Your task to perform on an android device: Play the last video I watched on Youtube Image 0: 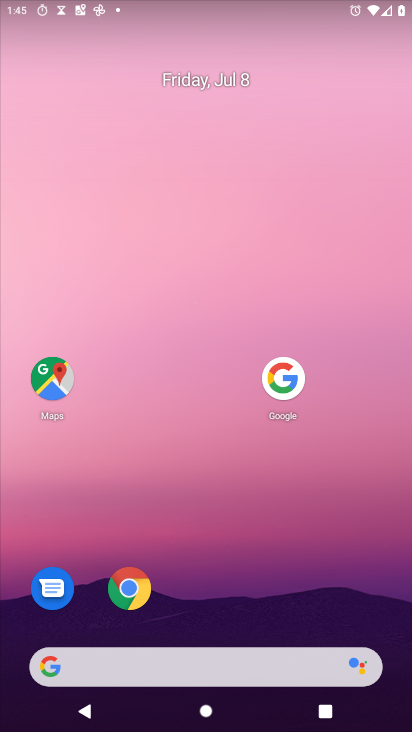
Step 0: drag from (227, 665) to (311, 69)
Your task to perform on an android device: Play the last video I watched on Youtube Image 1: 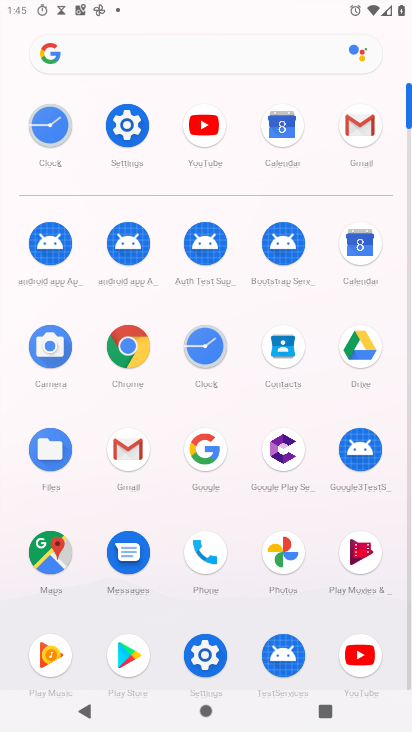
Step 1: click (351, 658)
Your task to perform on an android device: Play the last video I watched on Youtube Image 2: 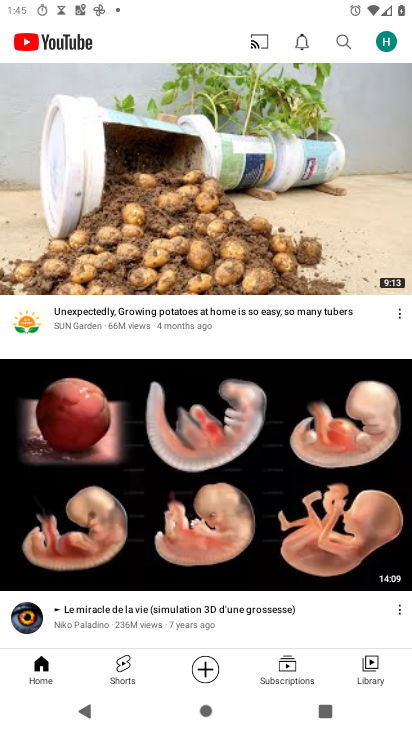
Step 2: click (367, 675)
Your task to perform on an android device: Play the last video I watched on Youtube Image 3: 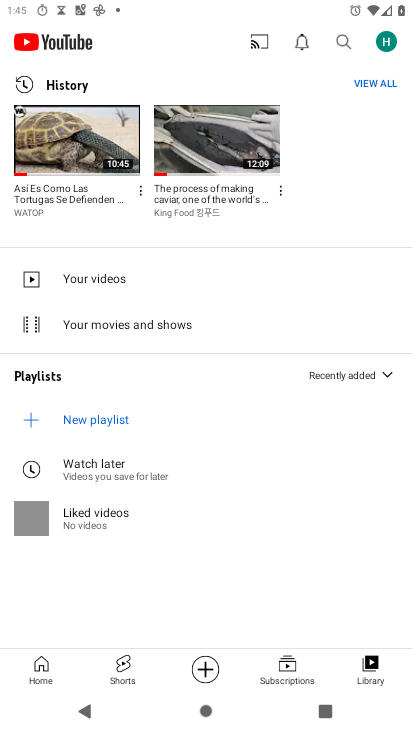
Step 3: click (77, 138)
Your task to perform on an android device: Play the last video I watched on Youtube Image 4: 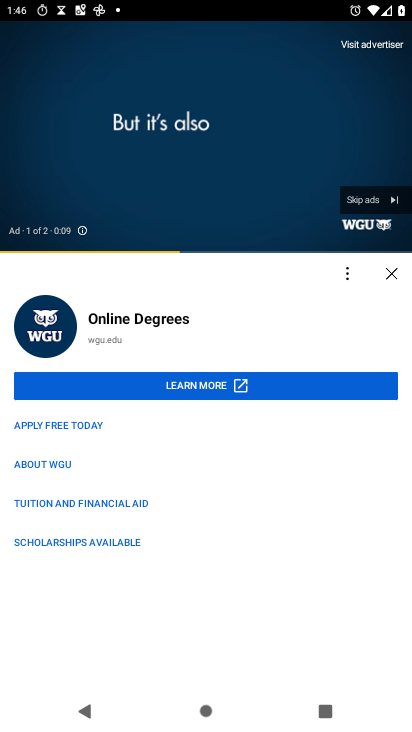
Step 4: click (369, 197)
Your task to perform on an android device: Play the last video I watched on Youtube Image 5: 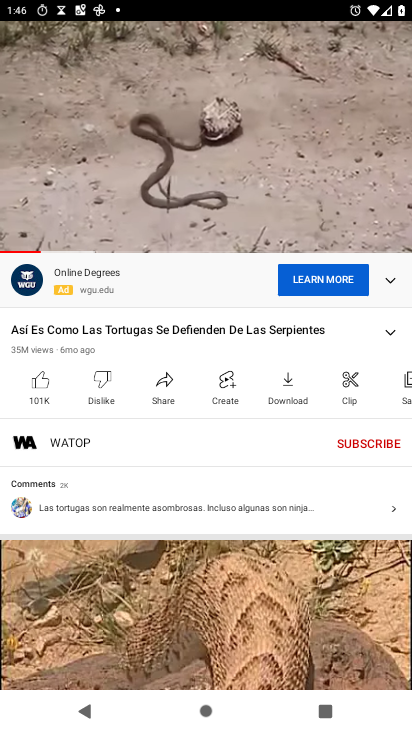
Step 5: click (202, 122)
Your task to perform on an android device: Play the last video I watched on Youtube Image 6: 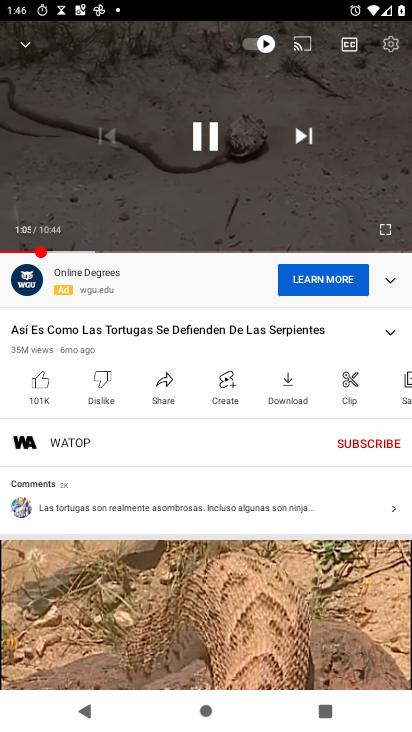
Step 6: click (206, 145)
Your task to perform on an android device: Play the last video I watched on Youtube Image 7: 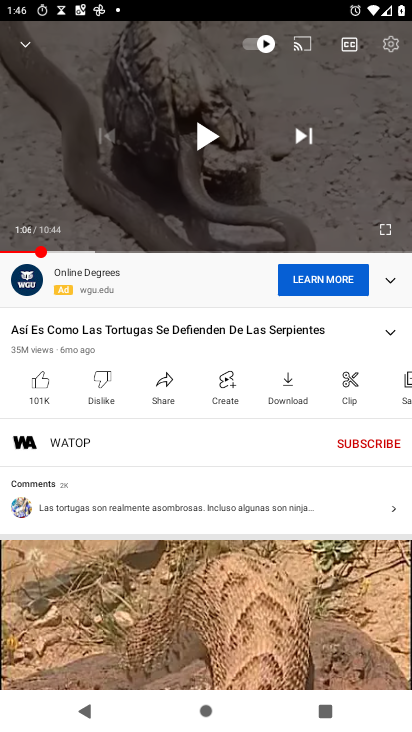
Step 7: task complete